Your task to perform on an android device: check android version Image 0: 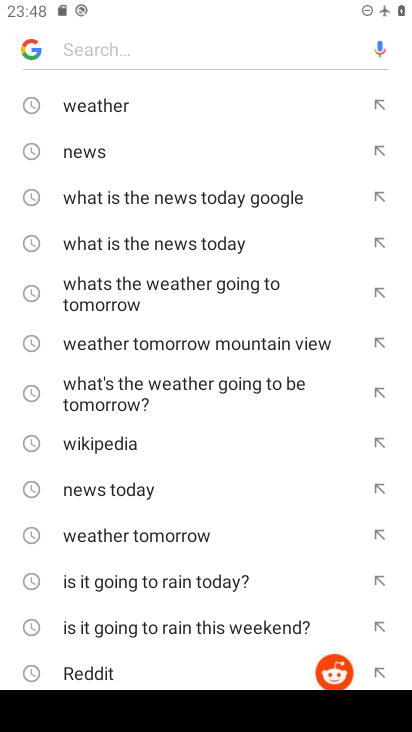
Step 0: press home button
Your task to perform on an android device: check android version Image 1: 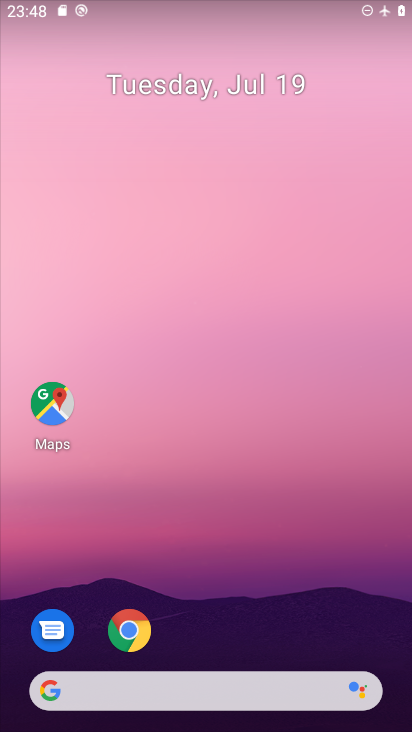
Step 1: drag from (230, 582) to (198, 121)
Your task to perform on an android device: check android version Image 2: 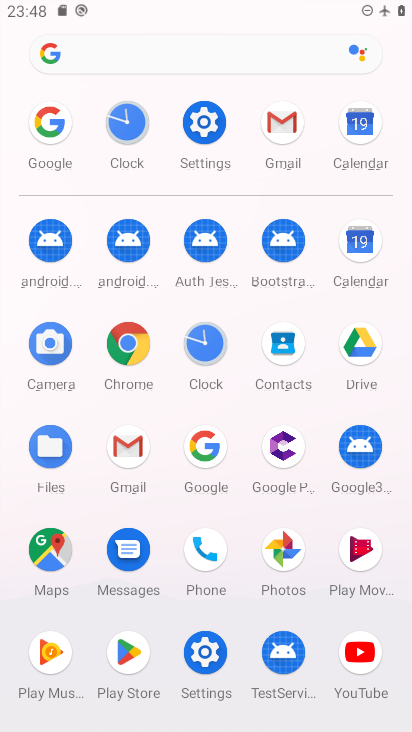
Step 2: click (198, 115)
Your task to perform on an android device: check android version Image 3: 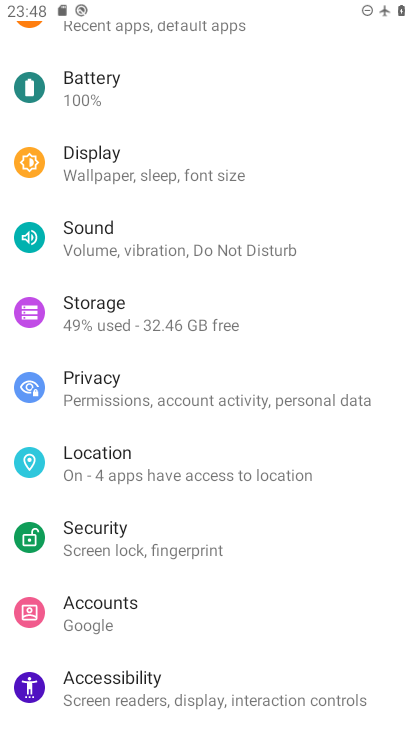
Step 3: drag from (171, 637) to (140, 159)
Your task to perform on an android device: check android version Image 4: 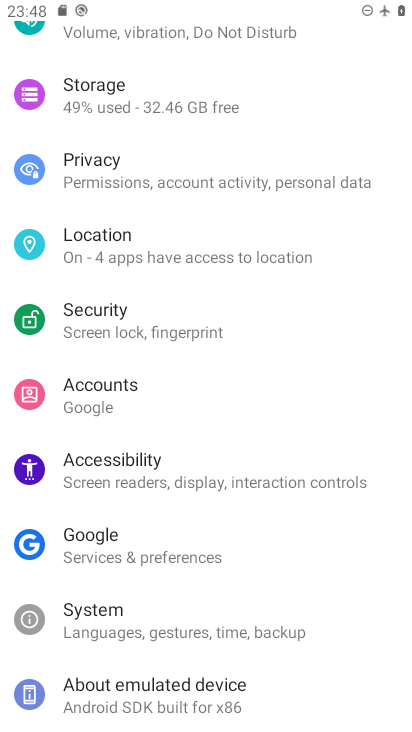
Step 4: drag from (147, 548) to (146, 217)
Your task to perform on an android device: check android version Image 5: 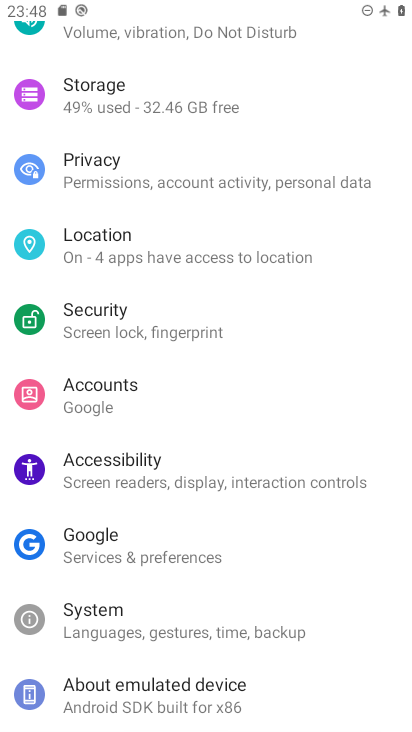
Step 5: click (111, 686)
Your task to perform on an android device: check android version Image 6: 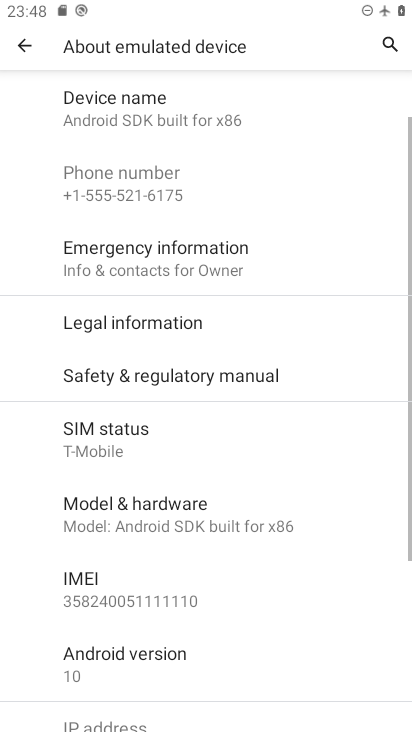
Step 6: click (117, 639)
Your task to perform on an android device: check android version Image 7: 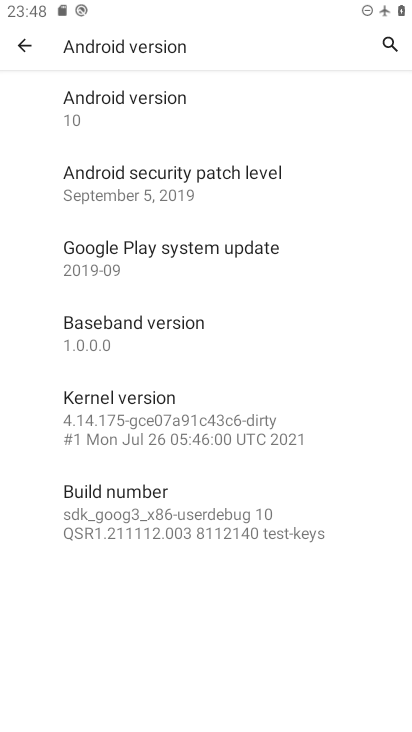
Step 7: click (282, 102)
Your task to perform on an android device: check android version Image 8: 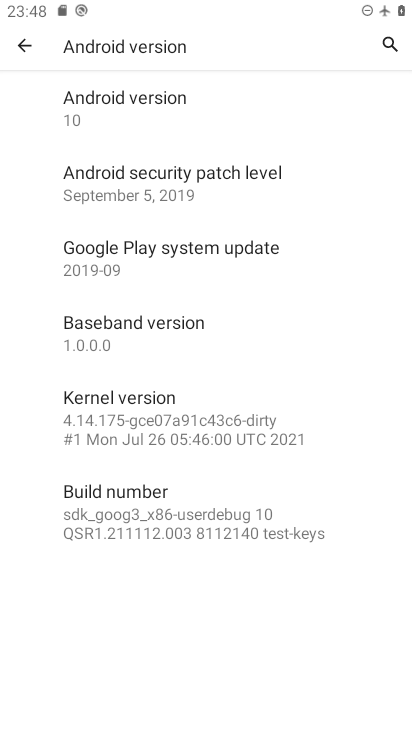
Step 8: task complete